Your task to perform on an android device: search for starred emails in the gmail app Image 0: 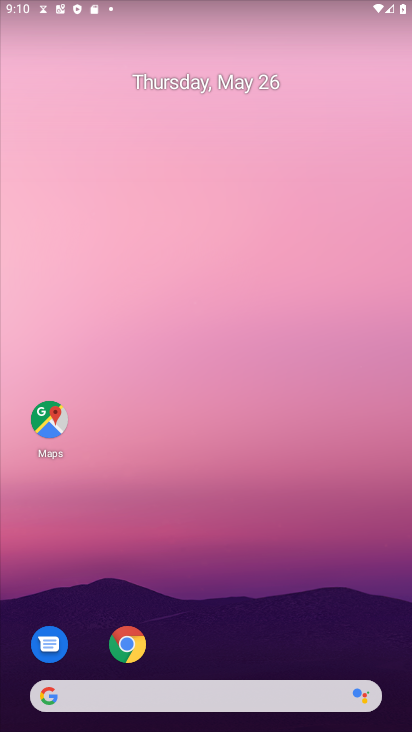
Step 0: drag from (220, 644) to (264, 166)
Your task to perform on an android device: search for starred emails in the gmail app Image 1: 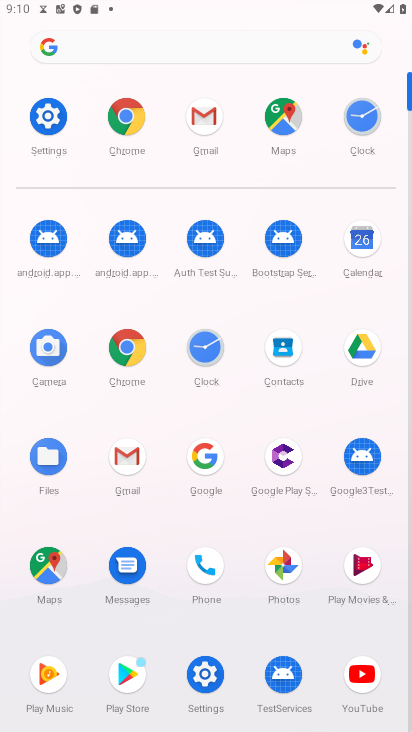
Step 1: click (205, 91)
Your task to perform on an android device: search for starred emails in the gmail app Image 2: 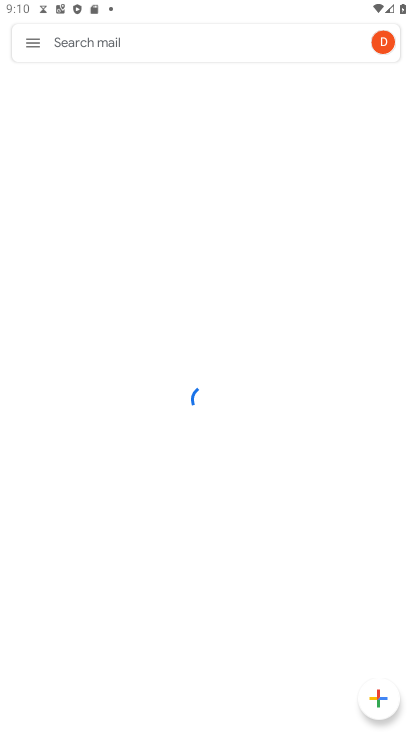
Step 2: click (35, 45)
Your task to perform on an android device: search for starred emails in the gmail app Image 3: 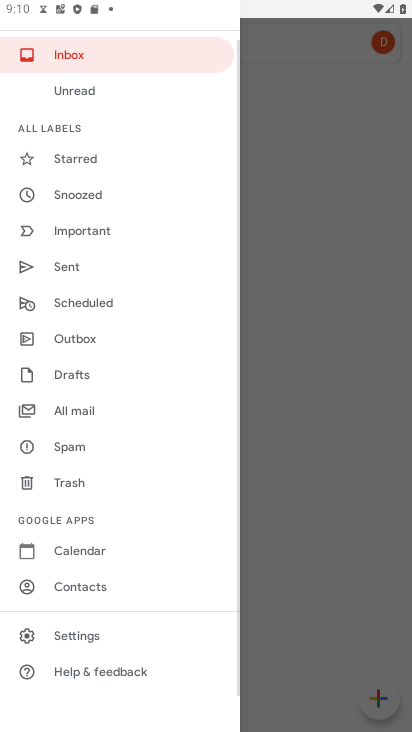
Step 3: click (92, 164)
Your task to perform on an android device: search for starred emails in the gmail app Image 4: 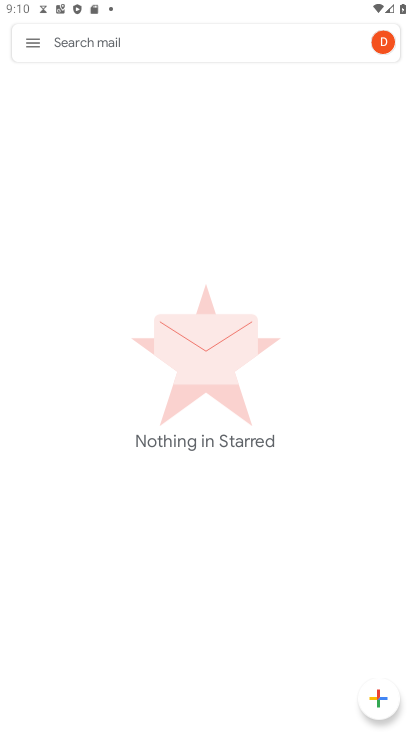
Step 4: task complete